Your task to perform on an android device: Go to Google Image 0: 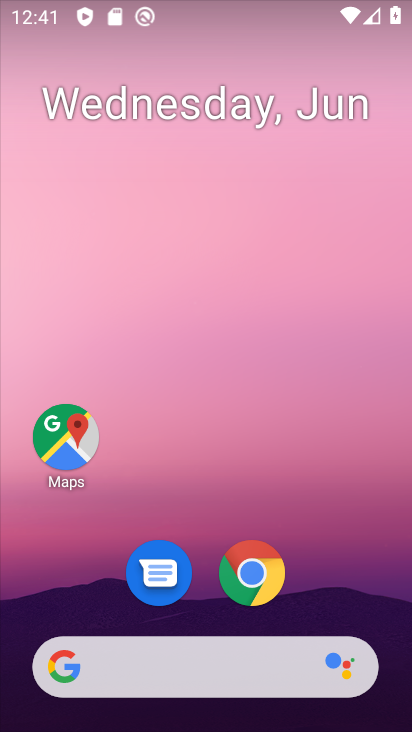
Step 0: drag from (361, 580) to (254, 209)
Your task to perform on an android device: Go to Google Image 1: 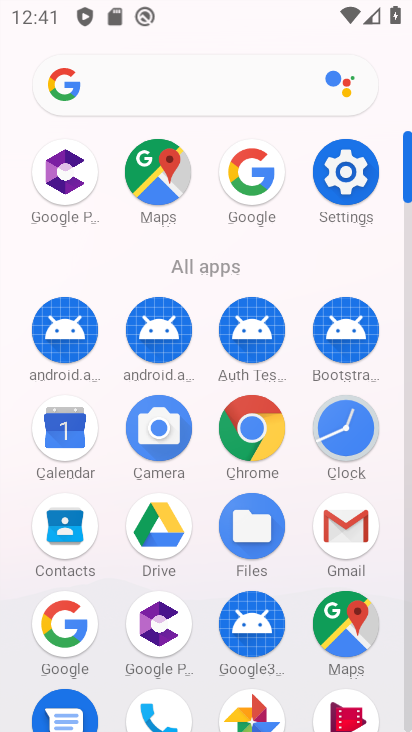
Step 1: click (66, 629)
Your task to perform on an android device: Go to Google Image 2: 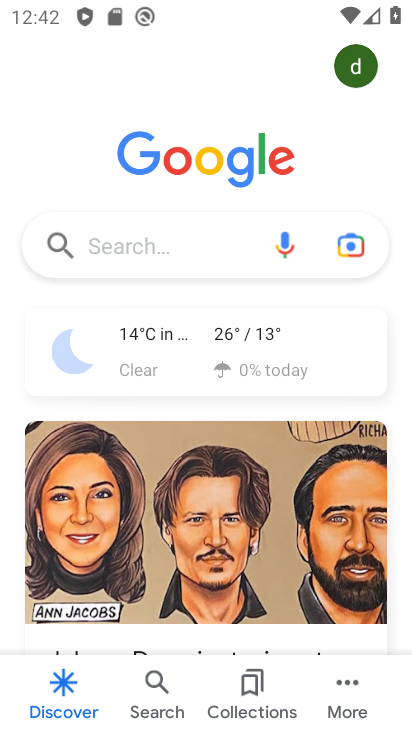
Step 2: task complete